Your task to perform on an android device: turn off smart reply in the gmail app Image 0: 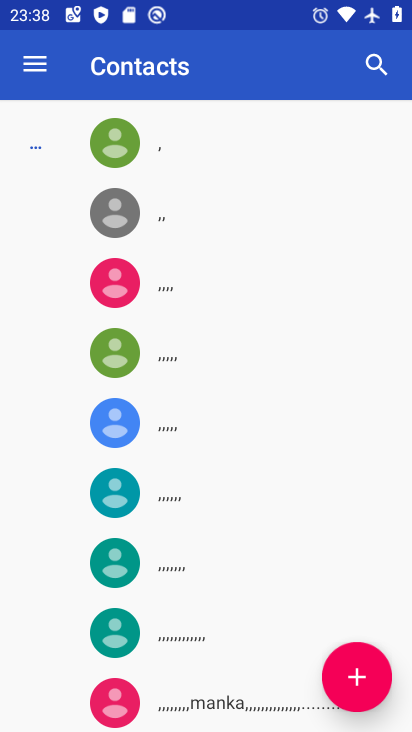
Step 0: press back button
Your task to perform on an android device: turn off smart reply in the gmail app Image 1: 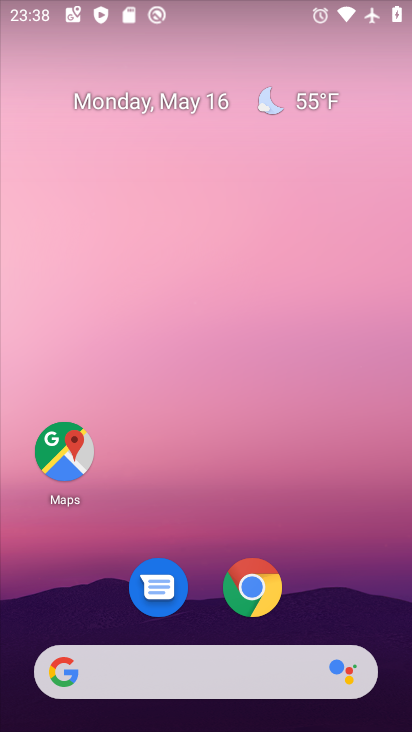
Step 1: drag from (344, 572) to (273, 5)
Your task to perform on an android device: turn off smart reply in the gmail app Image 2: 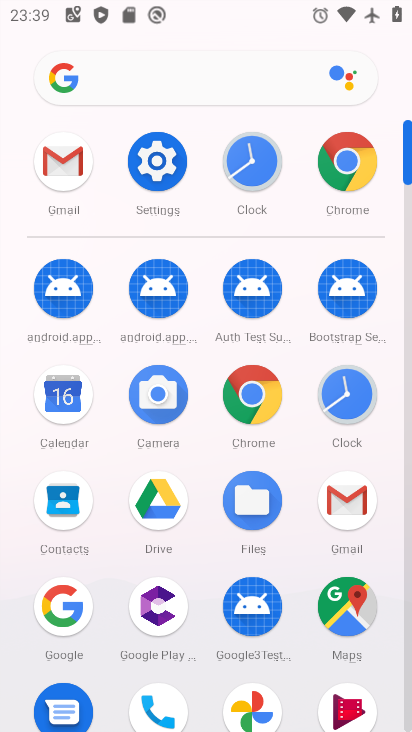
Step 2: drag from (14, 591) to (41, 147)
Your task to perform on an android device: turn off smart reply in the gmail app Image 3: 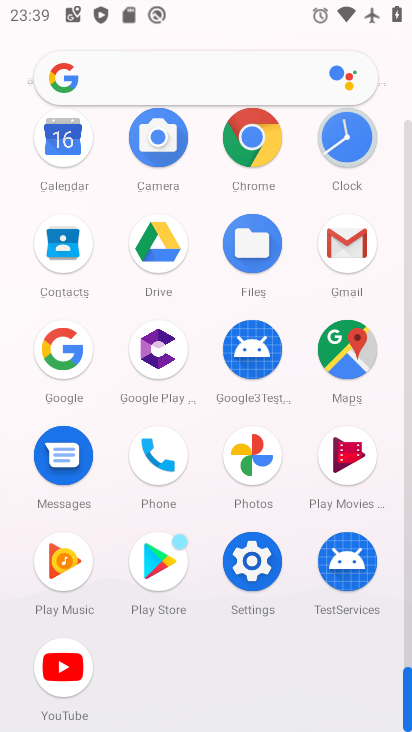
Step 3: click (345, 234)
Your task to perform on an android device: turn off smart reply in the gmail app Image 4: 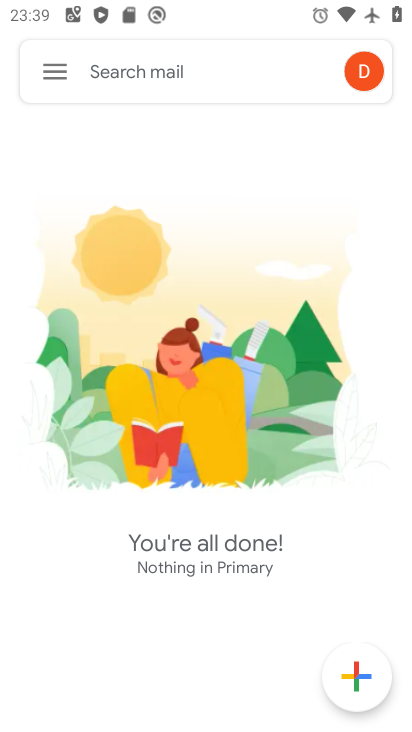
Step 4: click (59, 68)
Your task to perform on an android device: turn off smart reply in the gmail app Image 5: 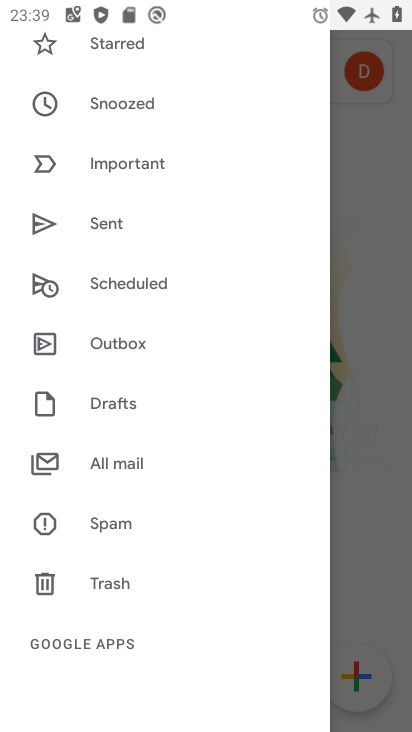
Step 5: drag from (138, 558) to (166, 189)
Your task to perform on an android device: turn off smart reply in the gmail app Image 6: 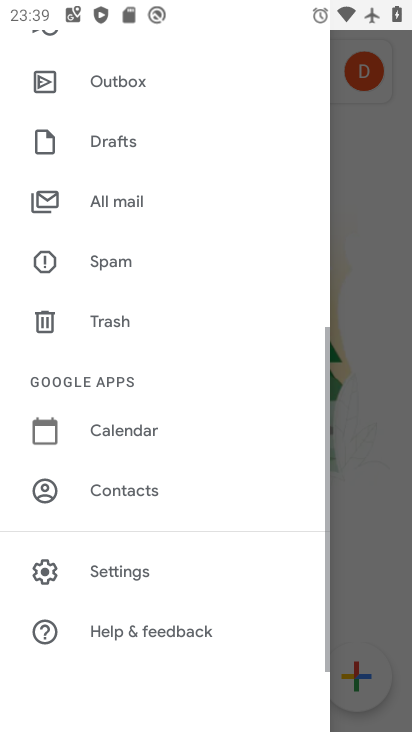
Step 6: click (109, 573)
Your task to perform on an android device: turn off smart reply in the gmail app Image 7: 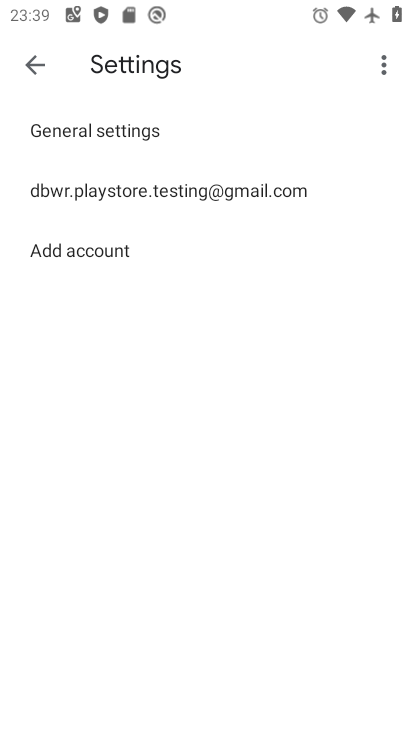
Step 7: click (131, 184)
Your task to perform on an android device: turn off smart reply in the gmail app Image 8: 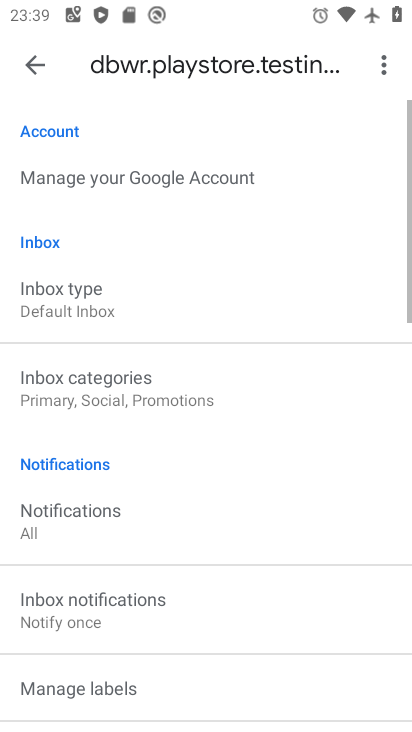
Step 8: drag from (219, 542) to (205, 177)
Your task to perform on an android device: turn off smart reply in the gmail app Image 9: 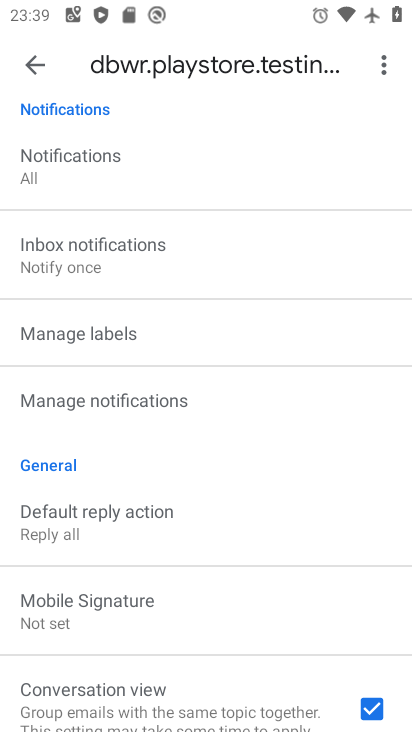
Step 9: drag from (158, 587) to (152, 174)
Your task to perform on an android device: turn off smart reply in the gmail app Image 10: 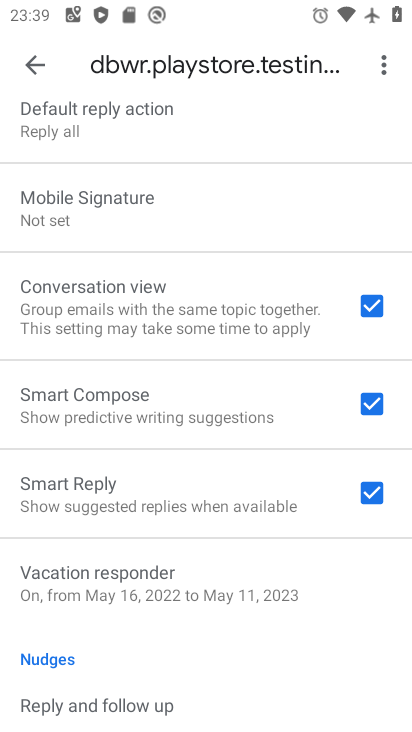
Step 10: click (372, 490)
Your task to perform on an android device: turn off smart reply in the gmail app Image 11: 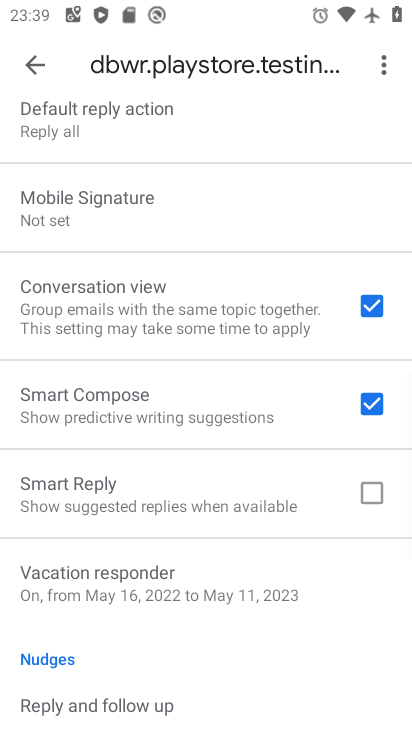
Step 11: task complete